Your task to perform on an android device: delete a single message in the gmail app Image 0: 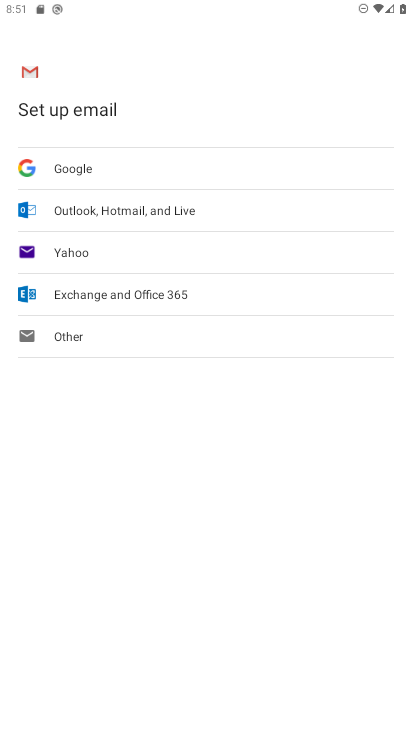
Step 0: press home button
Your task to perform on an android device: delete a single message in the gmail app Image 1: 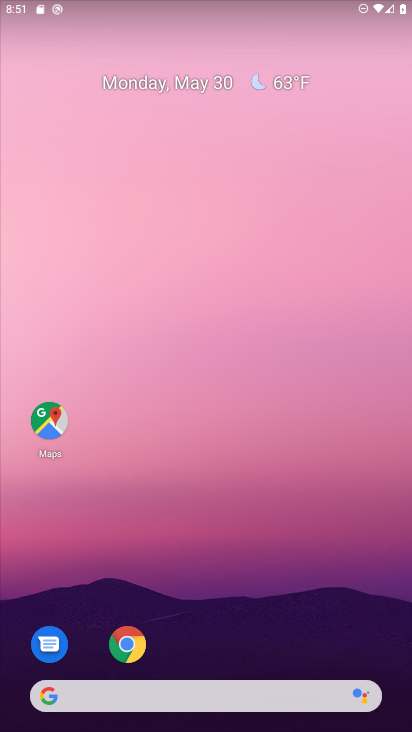
Step 1: drag from (224, 649) to (211, 84)
Your task to perform on an android device: delete a single message in the gmail app Image 2: 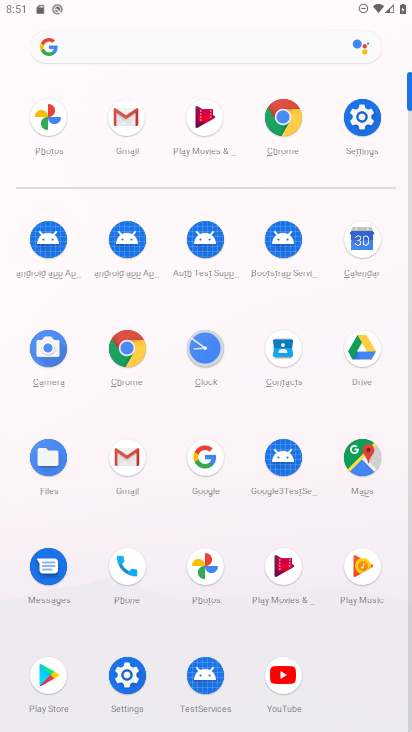
Step 2: click (126, 119)
Your task to perform on an android device: delete a single message in the gmail app Image 3: 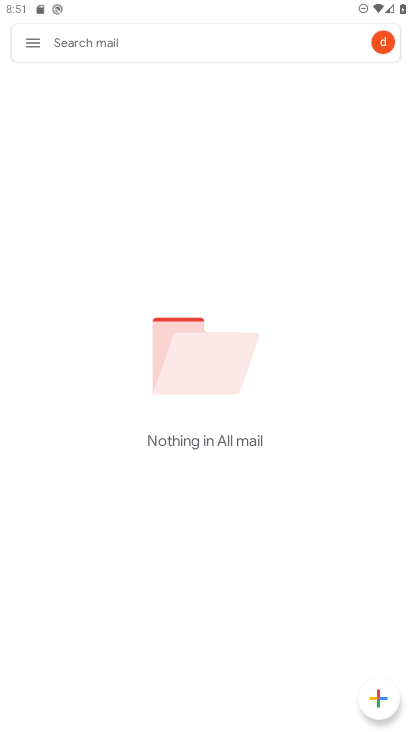
Step 3: task complete